Your task to perform on an android device: open a bookmark in the chrome app Image 0: 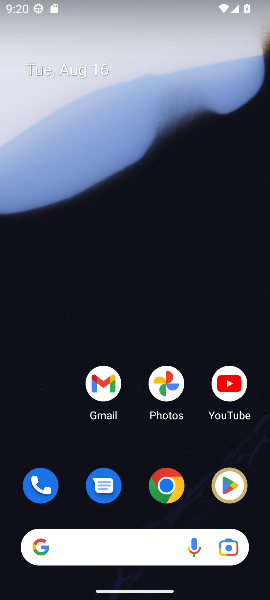
Step 0: click (178, 490)
Your task to perform on an android device: open a bookmark in the chrome app Image 1: 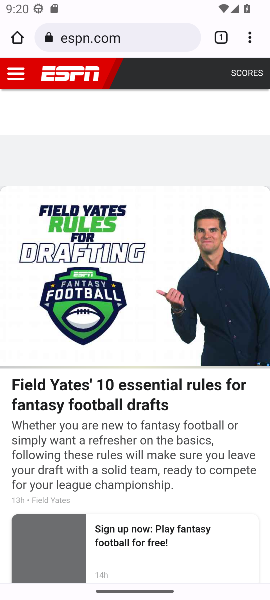
Step 1: click (251, 38)
Your task to perform on an android device: open a bookmark in the chrome app Image 2: 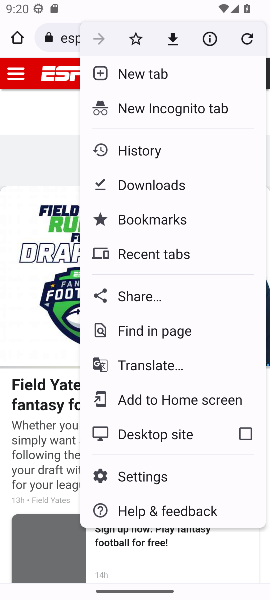
Step 2: click (153, 223)
Your task to perform on an android device: open a bookmark in the chrome app Image 3: 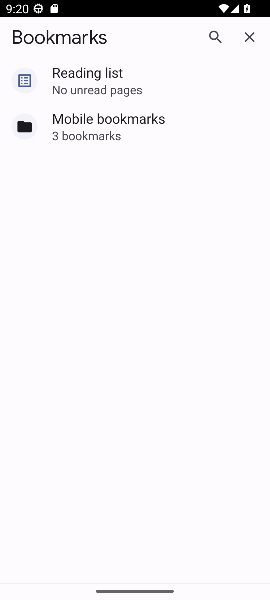
Step 3: click (72, 125)
Your task to perform on an android device: open a bookmark in the chrome app Image 4: 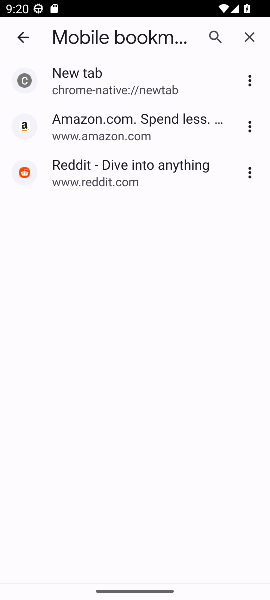
Step 4: click (95, 135)
Your task to perform on an android device: open a bookmark in the chrome app Image 5: 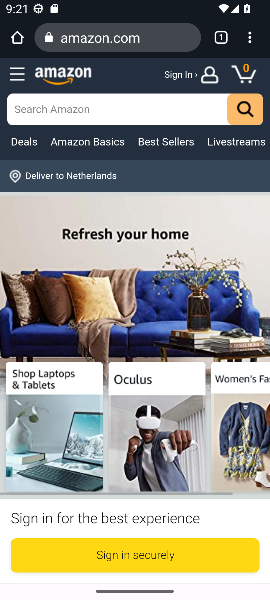
Step 5: task complete